Your task to perform on an android device: see sites visited before in the chrome app Image 0: 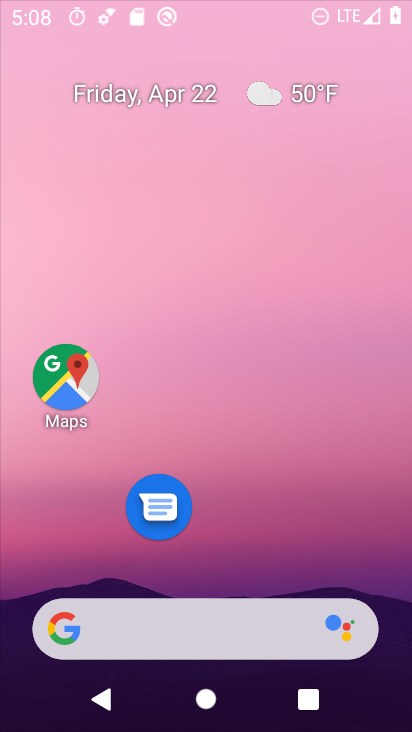
Step 0: drag from (233, 169) to (247, 61)
Your task to perform on an android device: see sites visited before in the chrome app Image 1: 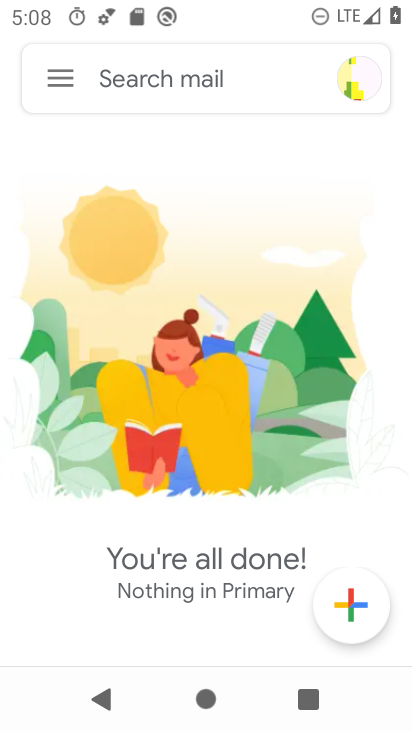
Step 1: press back button
Your task to perform on an android device: see sites visited before in the chrome app Image 2: 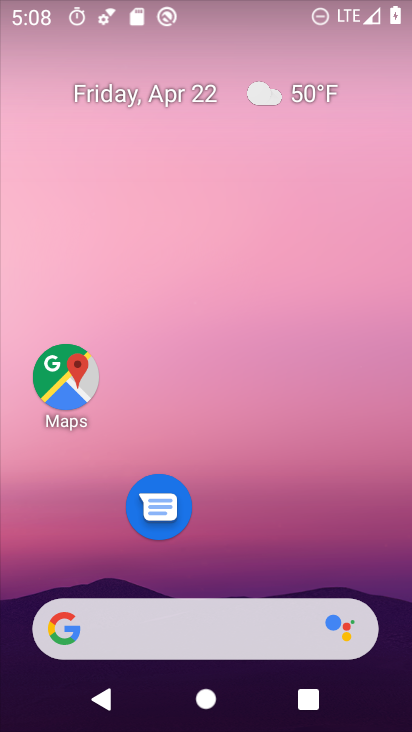
Step 2: drag from (230, 561) to (321, 221)
Your task to perform on an android device: see sites visited before in the chrome app Image 3: 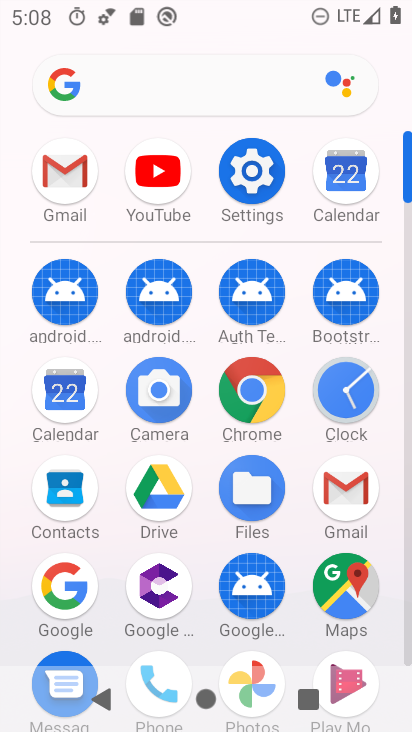
Step 3: click (254, 382)
Your task to perform on an android device: see sites visited before in the chrome app Image 4: 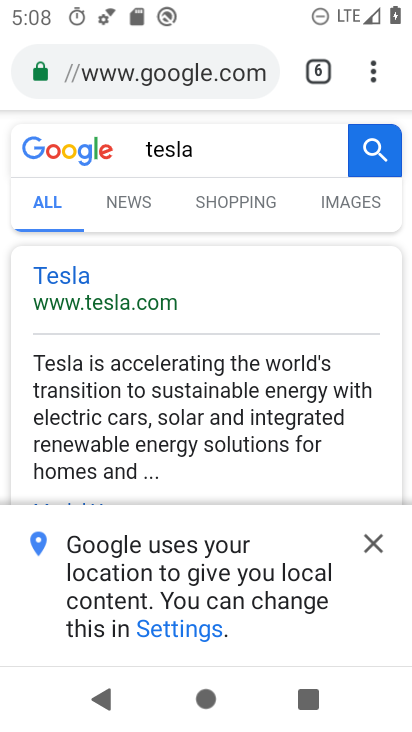
Step 4: task complete